Your task to perform on an android device: change the clock display to analog Image 0: 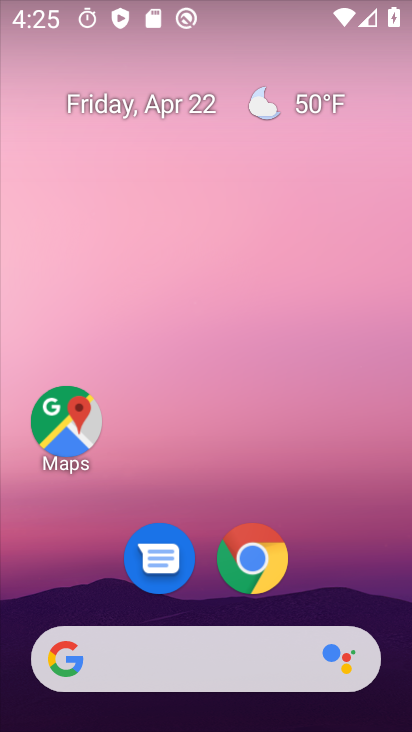
Step 0: drag from (333, 596) to (255, 177)
Your task to perform on an android device: change the clock display to analog Image 1: 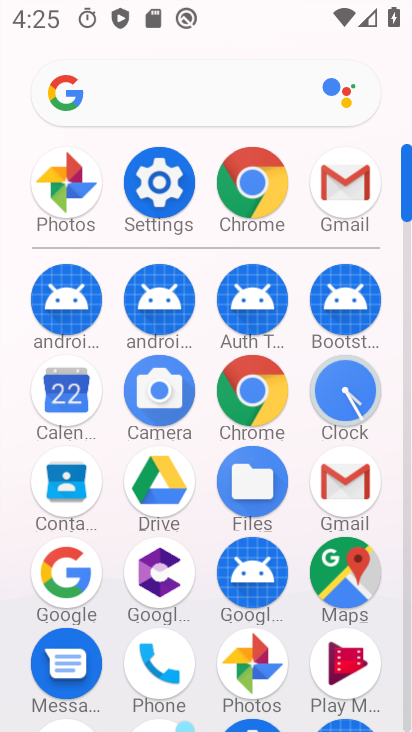
Step 1: click (353, 419)
Your task to perform on an android device: change the clock display to analog Image 2: 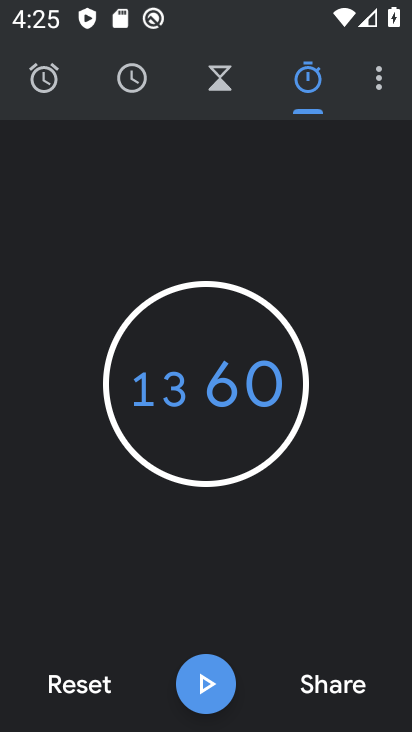
Step 2: click (378, 78)
Your task to perform on an android device: change the clock display to analog Image 3: 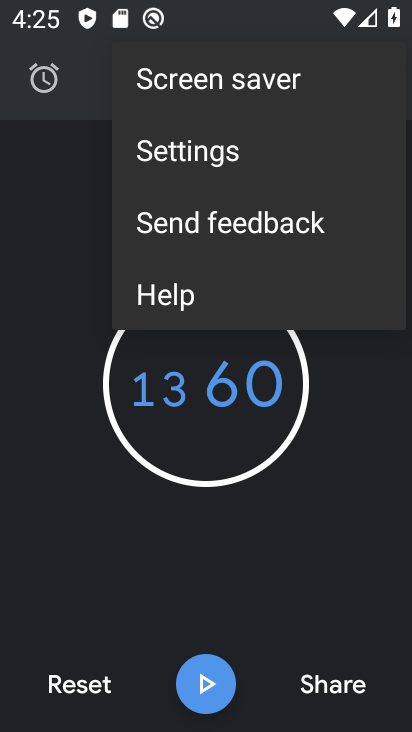
Step 3: click (191, 159)
Your task to perform on an android device: change the clock display to analog Image 4: 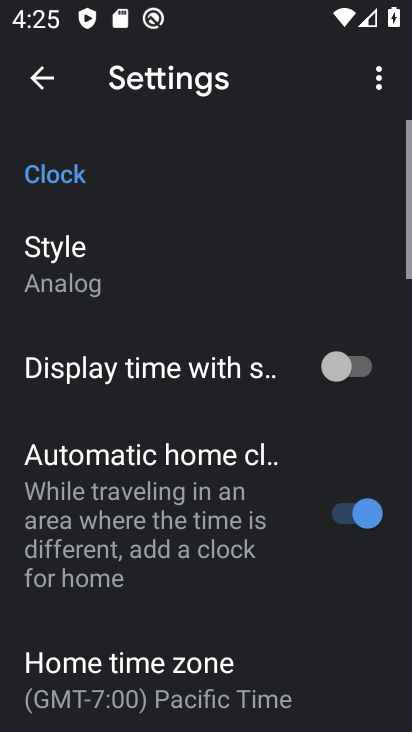
Step 4: click (81, 265)
Your task to perform on an android device: change the clock display to analog Image 5: 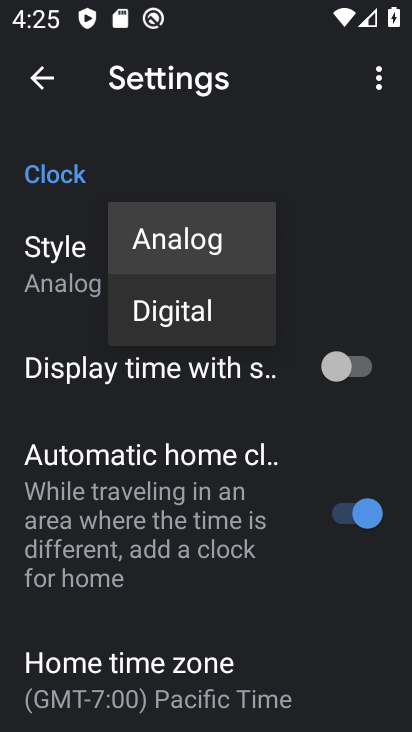
Step 5: task complete